Your task to perform on an android device: turn on wifi Image 0: 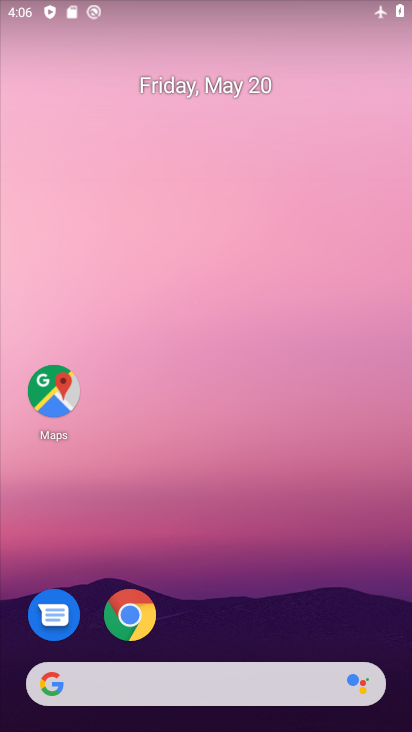
Step 0: drag from (263, 161) to (262, 106)
Your task to perform on an android device: turn on wifi Image 1: 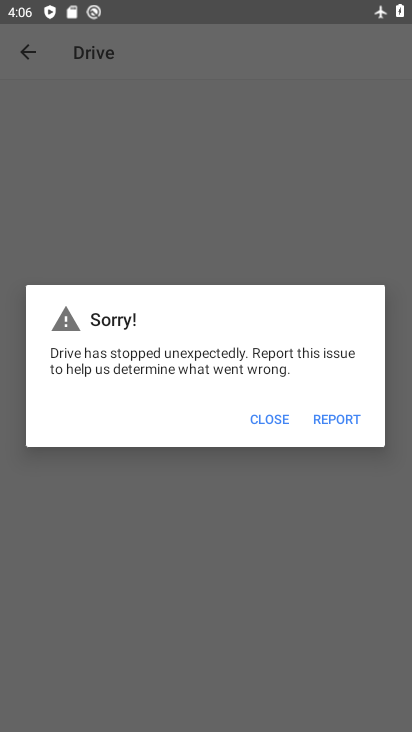
Step 1: press home button
Your task to perform on an android device: turn on wifi Image 2: 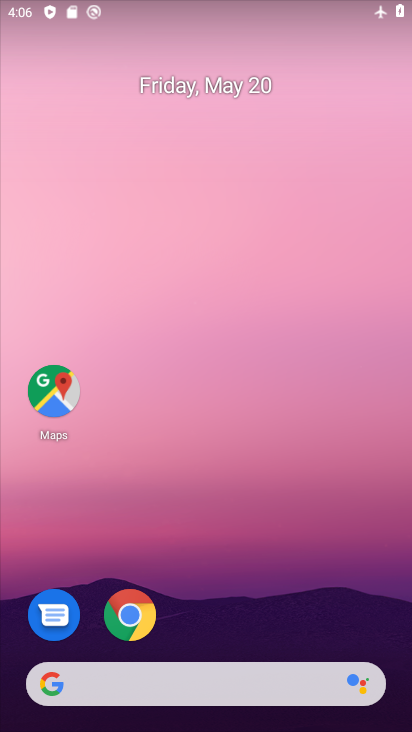
Step 2: drag from (223, 607) to (295, 101)
Your task to perform on an android device: turn on wifi Image 3: 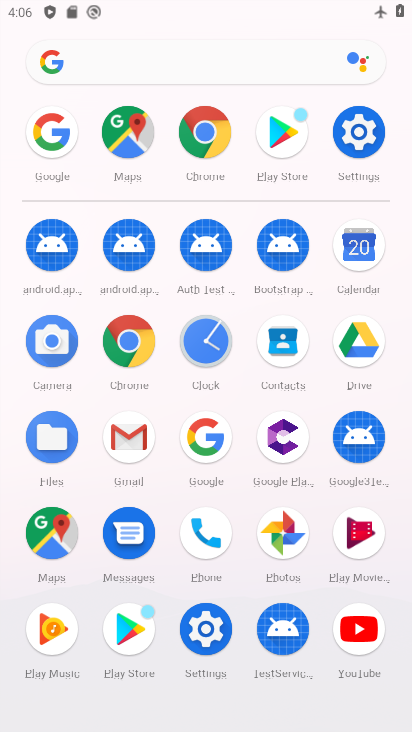
Step 3: click (358, 159)
Your task to perform on an android device: turn on wifi Image 4: 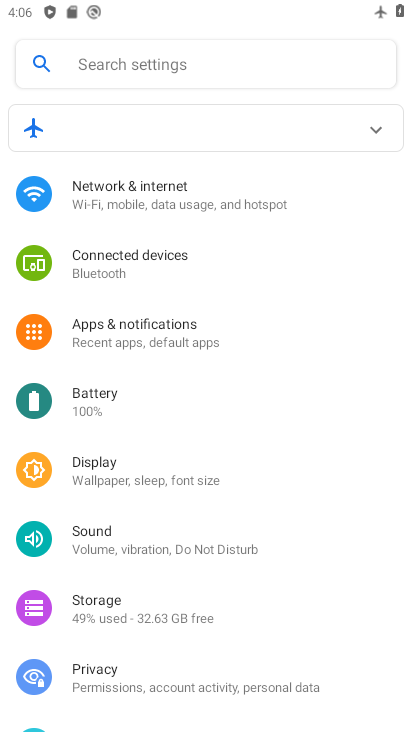
Step 4: click (177, 190)
Your task to perform on an android device: turn on wifi Image 5: 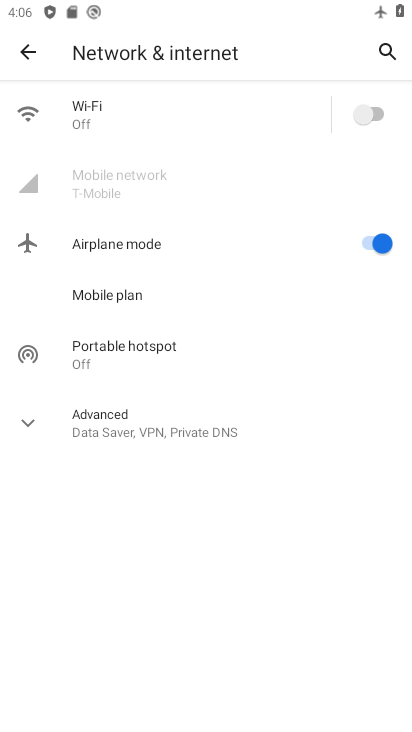
Step 5: click (179, 110)
Your task to perform on an android device: turn on wifi Image 6: 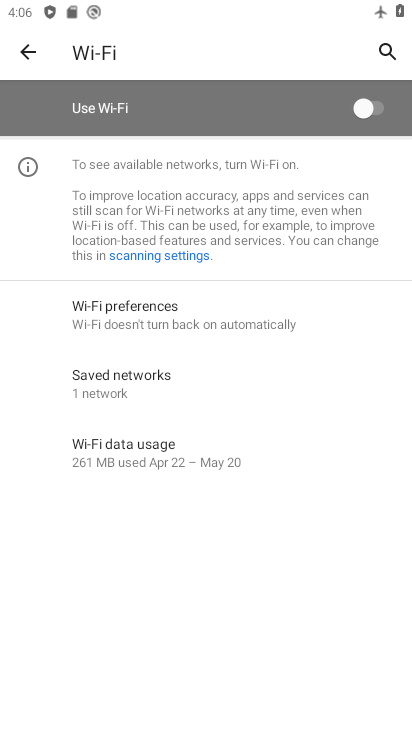
Step 6: task complete